Your task to perform on an android device: Clear the cart on costco. Search for "acer predator" on costco, select the first entry, and add it to the cart. Image 0: 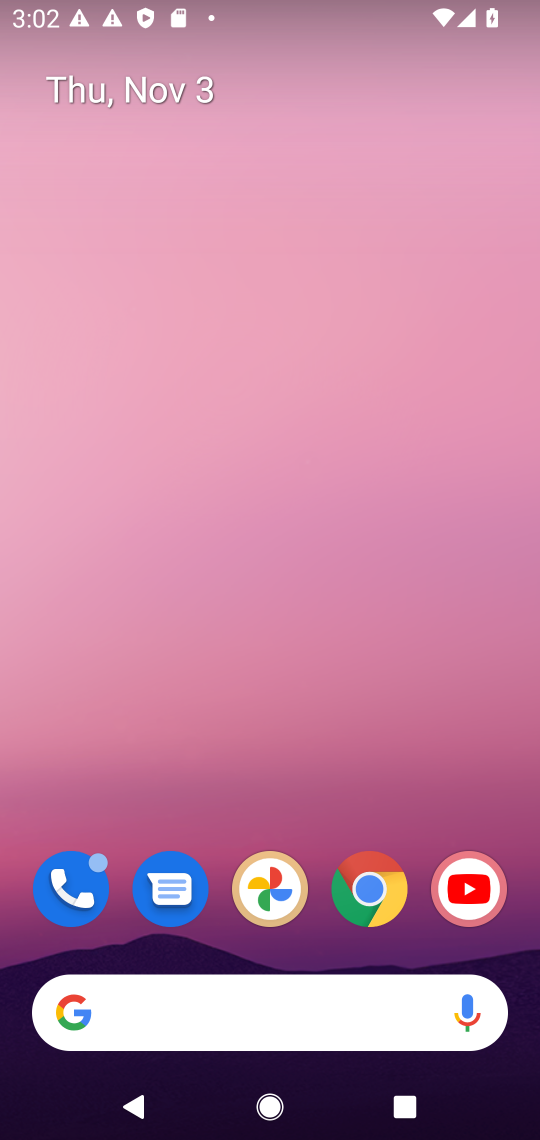
Step 0: click (381, 885)
Your task to perform on an android device: Clear the cart on costco. Search for "acer predator" on costco, select the first entry, and add it to the cart. Image 1: 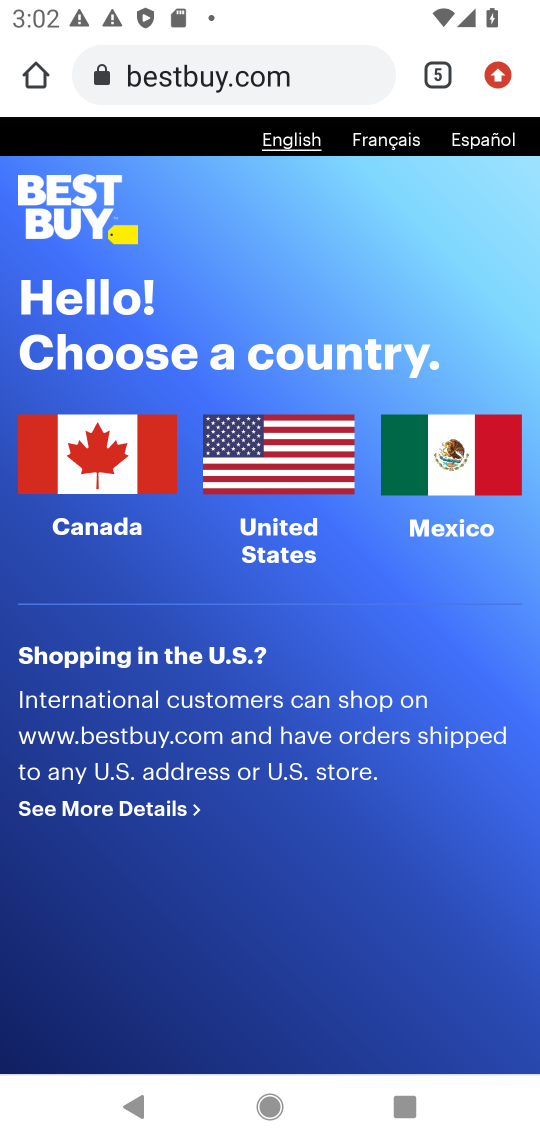
Step 1: click (436, 75)
Your task to perform on an android device: Clear the cart on costco. Search for "acer predator" on costco, select the first entry, and add it to the cart. Image 2: 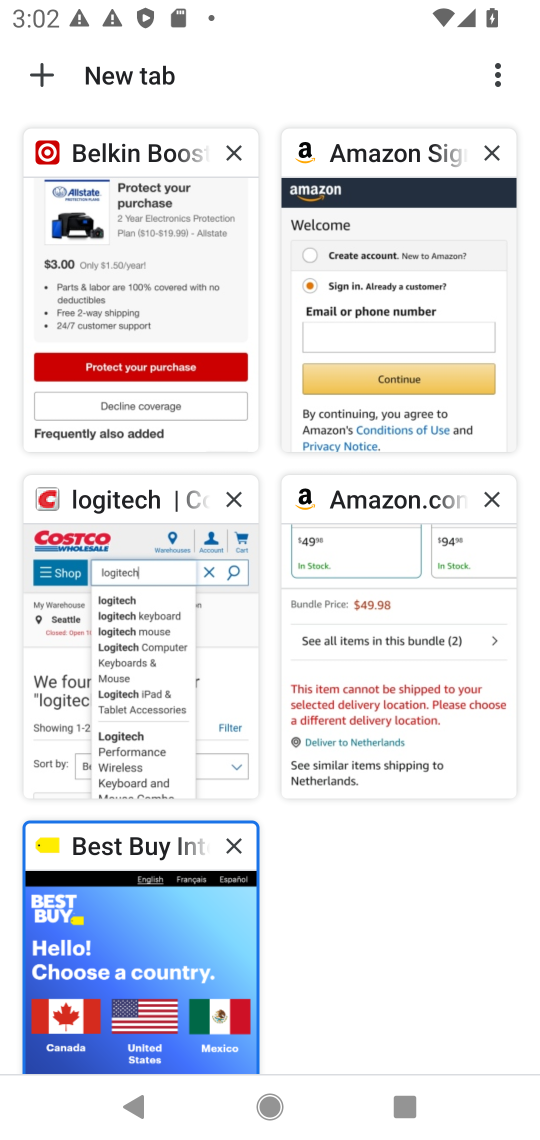
Step 2: click (40, 78)
Your task to perform on an android device: Clear the cart on costco. Search for "acer predator" on costco, select the first entry, and add it to the cart. Image 3: 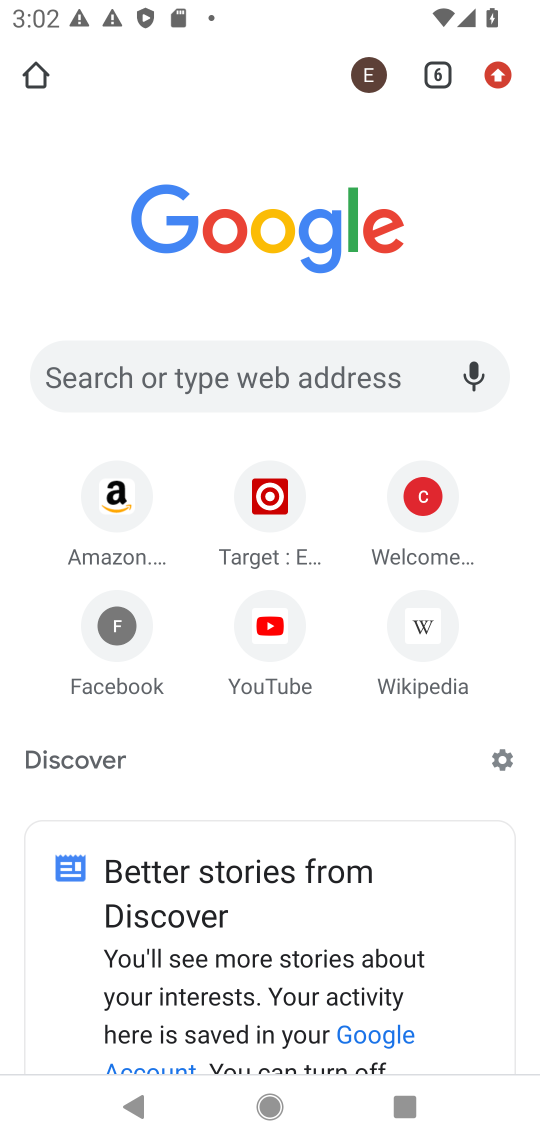
Step 3: click (230, 365)
Your task to perform on an android device: Clear the cart on costco. Search for "acer predator" on costco, select the first entry, and add it to the cart. Image 4: 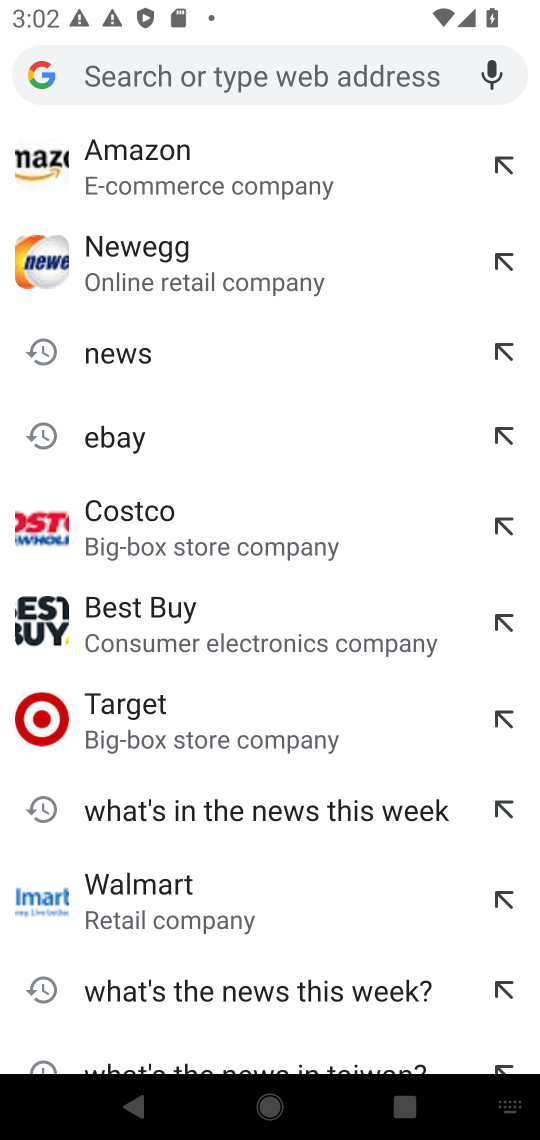
Step 4: type "costco"
Your task to perform on an android device: Clear the cart on costco. Search for "acer predator" on costco, select the first entry, and add it to the cart. Image 5: 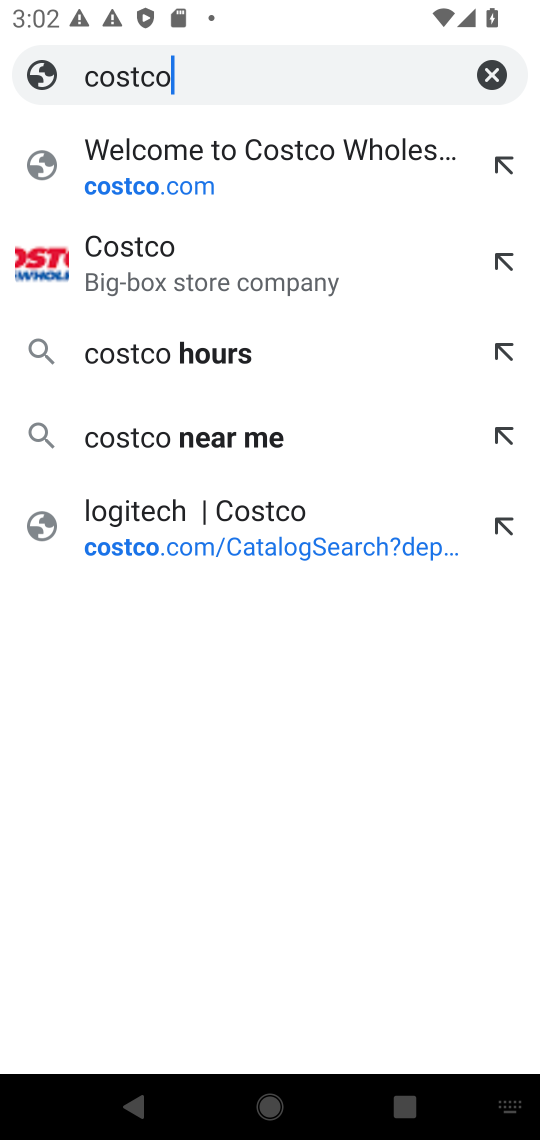
Step 5: click (283, 179)
Your task to perform on an android device: Clear the cart on costco. Search for "acer predator" on costco, select the first entry, and add it to the cart. Image 6: 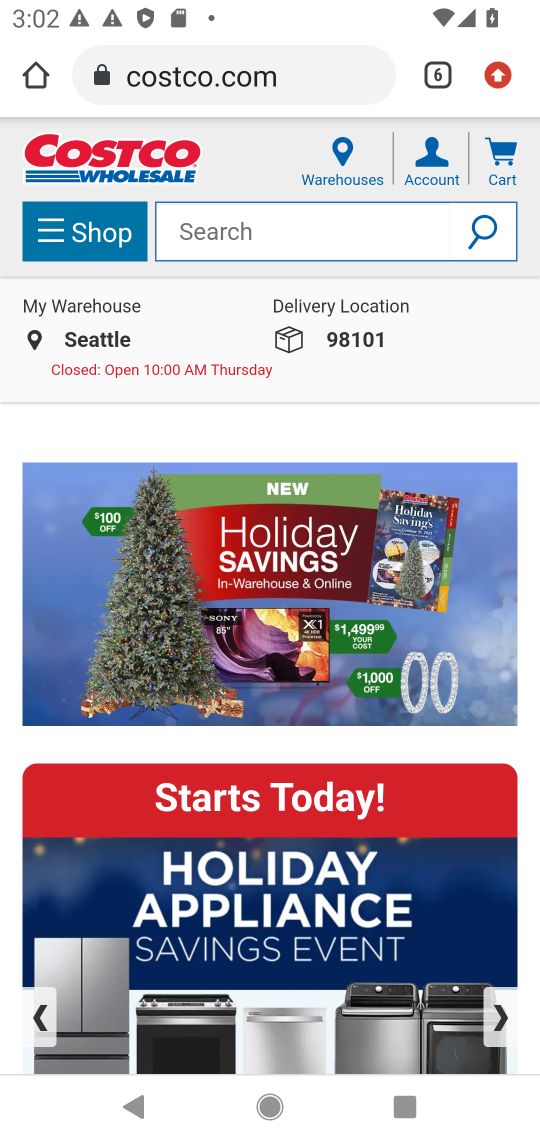
Step 6: click (233, 226)
Your task to perform on an android device: Clear the cart on costco. Search for "acer predator" on costco, select the first entry, and add it to the cart. Image 7: 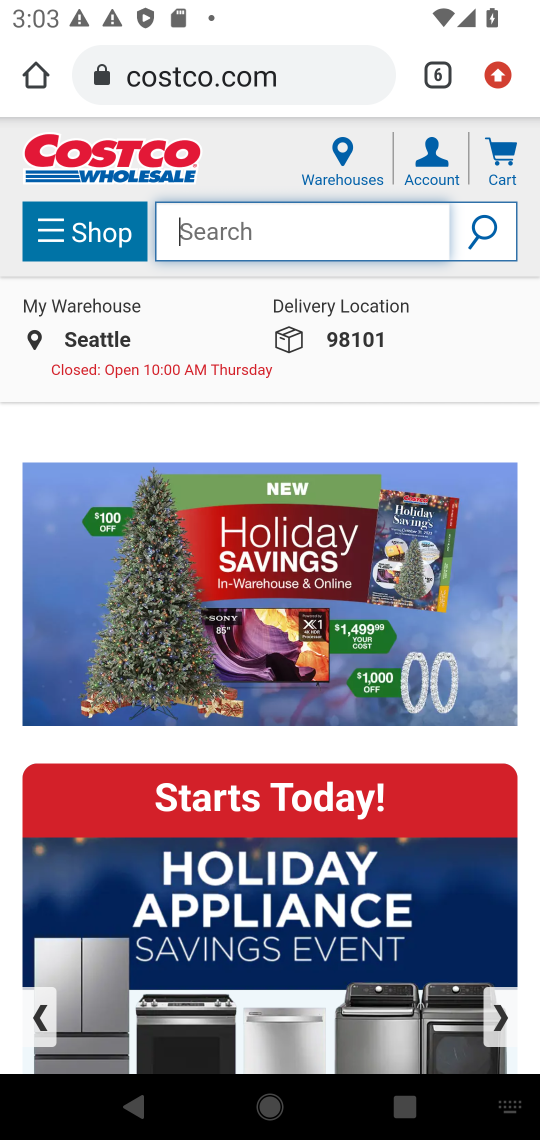
Step 7: click (274, 241)
Your task to perform on an android device: Clear the cart on costco. Search for "acer predator" on costco, select the first entry, and add it to the cart. Image 8: 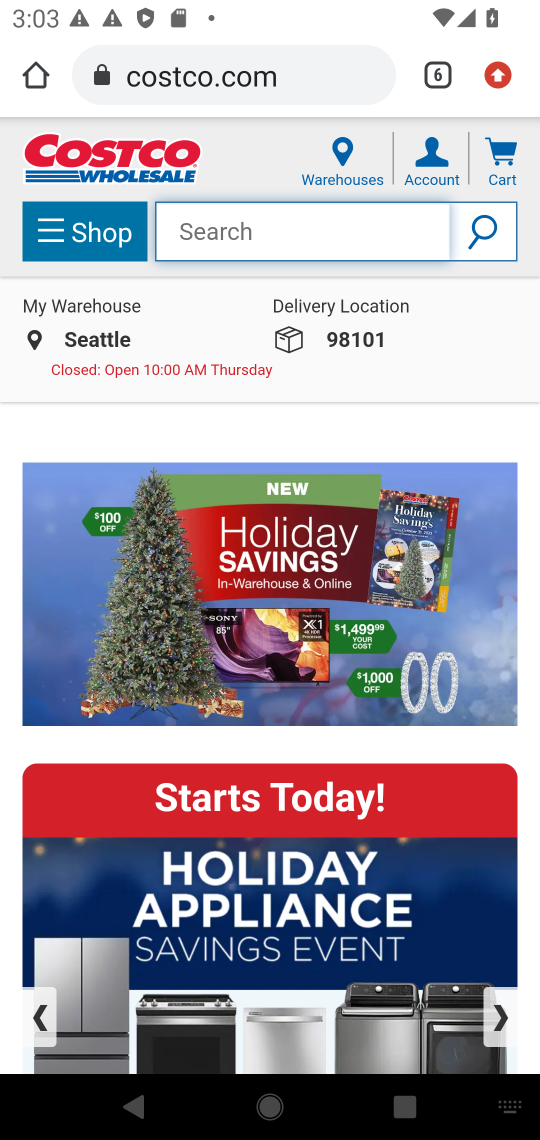
Step 8: type "acer predator"
Your task to perform on an android device: Clear the cart on costco. Search for "acer predator" on costco, select the first entry, and add it to the cart. Image 9: 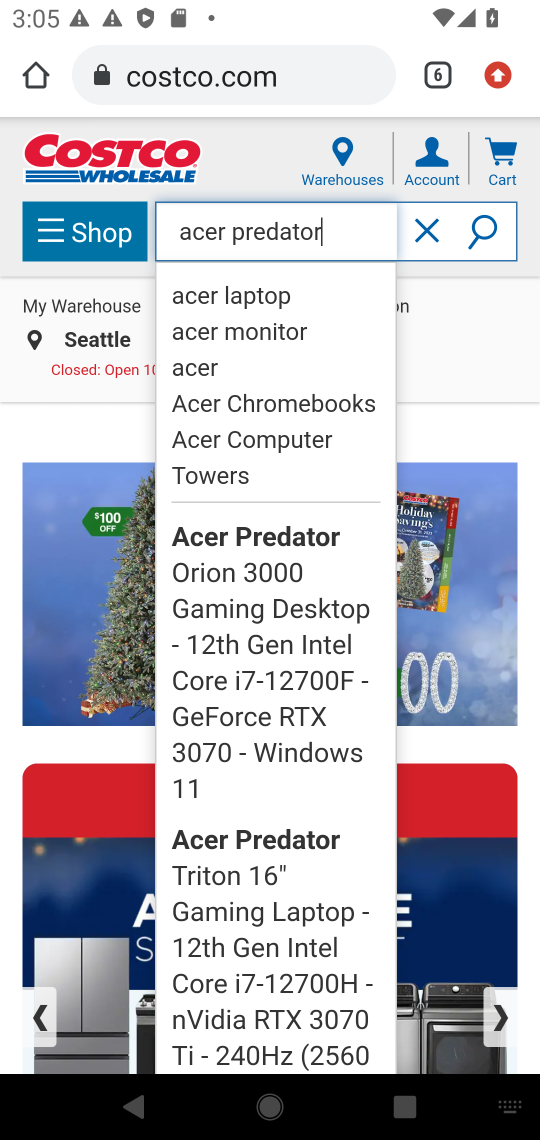
Step 9: click (280, 536)
Your task to perform on an android device: Clear the cart on costco. Search for "acer predator" on costco, select the first entry, and add it to the cart. Image 10: 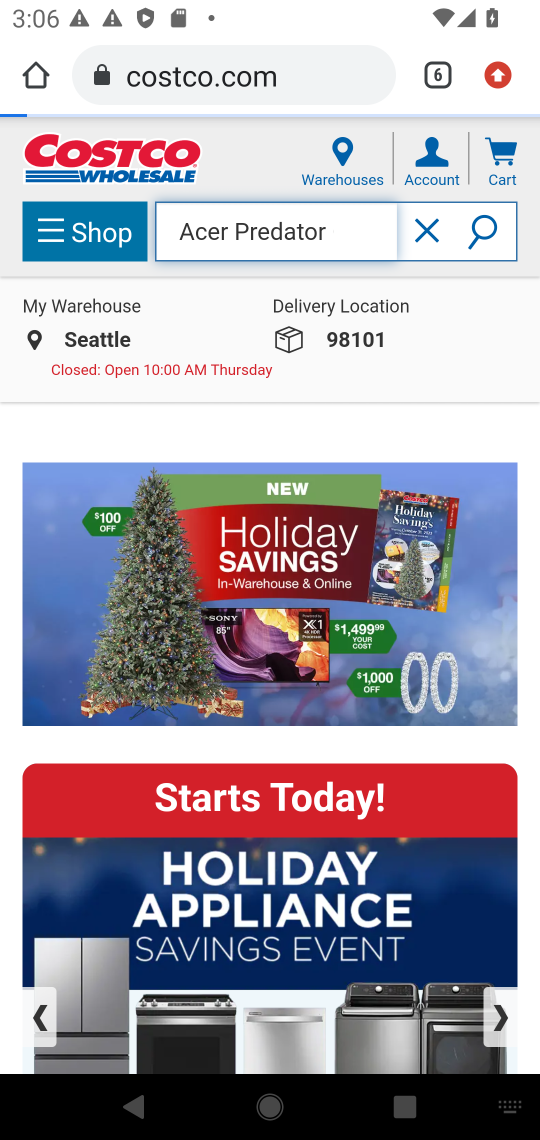
Step 10: drag from (355, 846) to (414, 340)
Your task to perform on an android device: Clear the cart on costco. Search for "acer predator" on costco, select the first entry, and add it to the cart. Image 11: 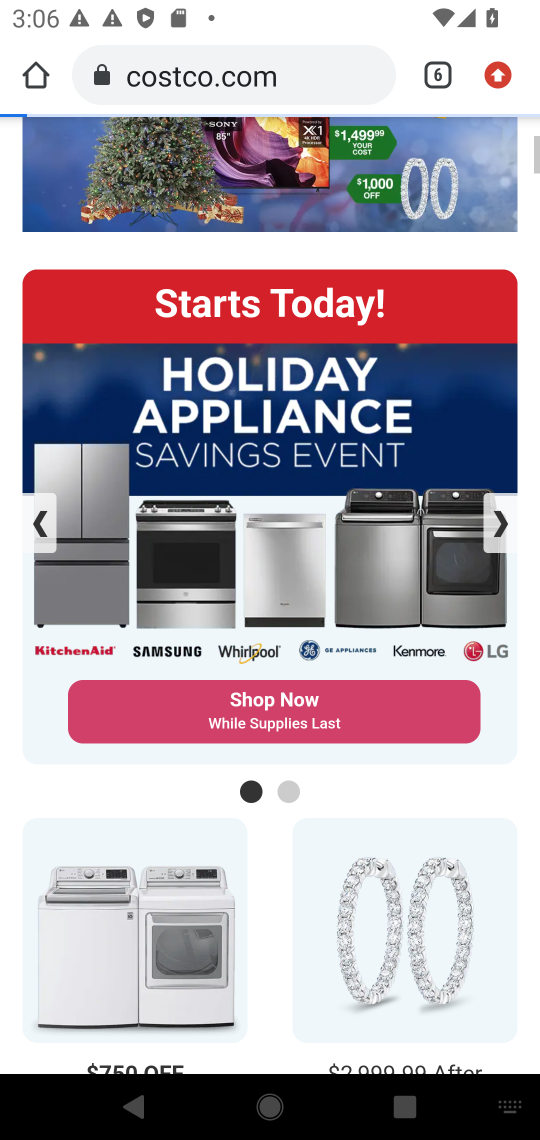
Step 11: drag from (406, 405) to (456, 1108)
Your task to perform on an android device: Clear the cart on costco. Search for "acer predator" on costco, select the first entry, and add it to the cart. Image 12: 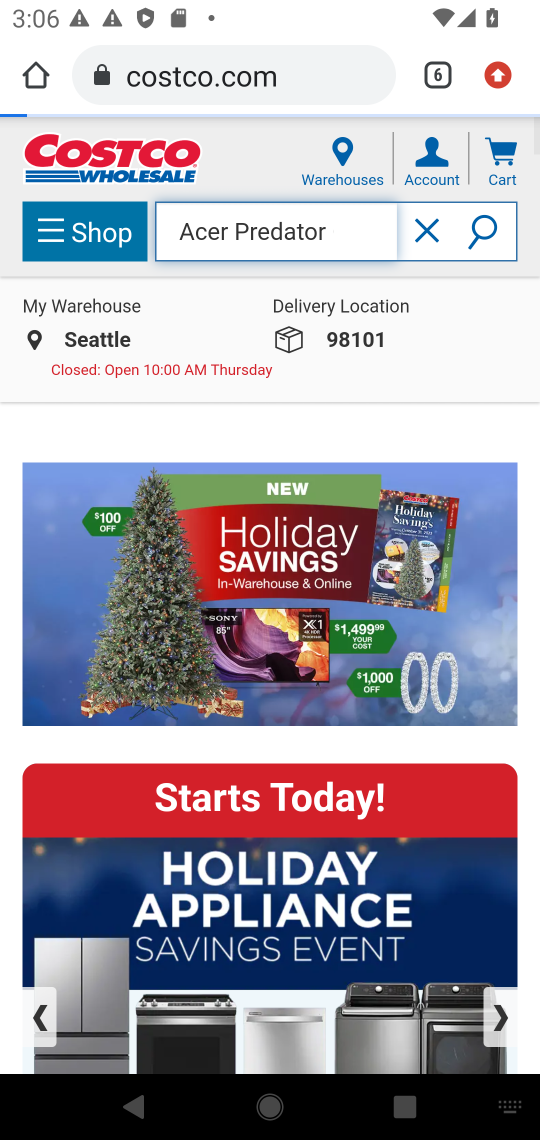
Step 12: drag from (355, 395) to (302, 920)
Your task to perform on an android device: Clear the cart on costco. Search for "acer predator" on costco, select the first entry, and add it to the cart. Image 13: 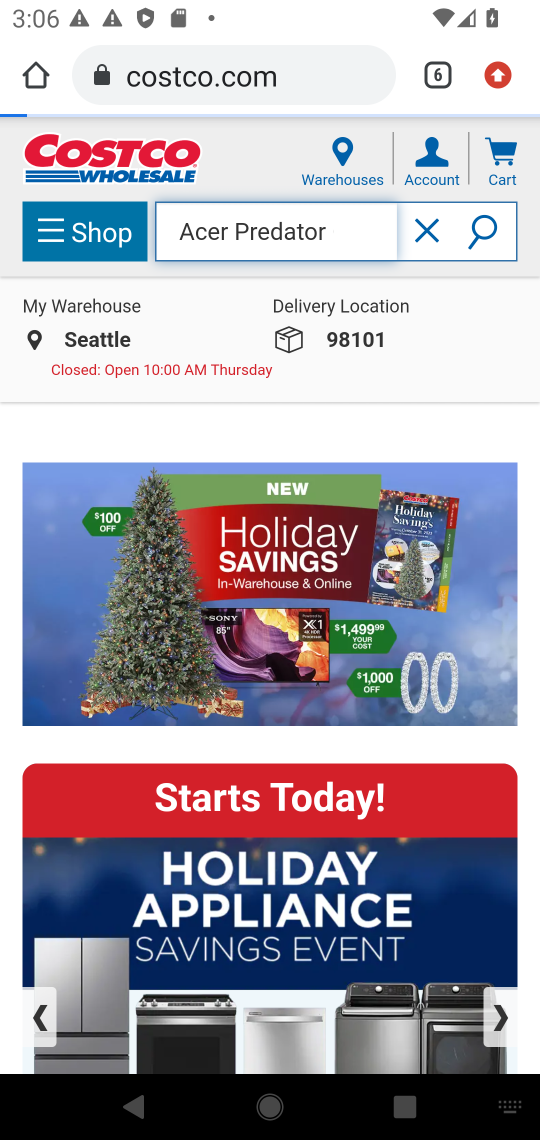
Step 13: click (484, 226)
Your task to perform on an android device: Clear the cart on costco. Search for "acer predator" on costco, select the first entry, and add it to the cart. Image 14: 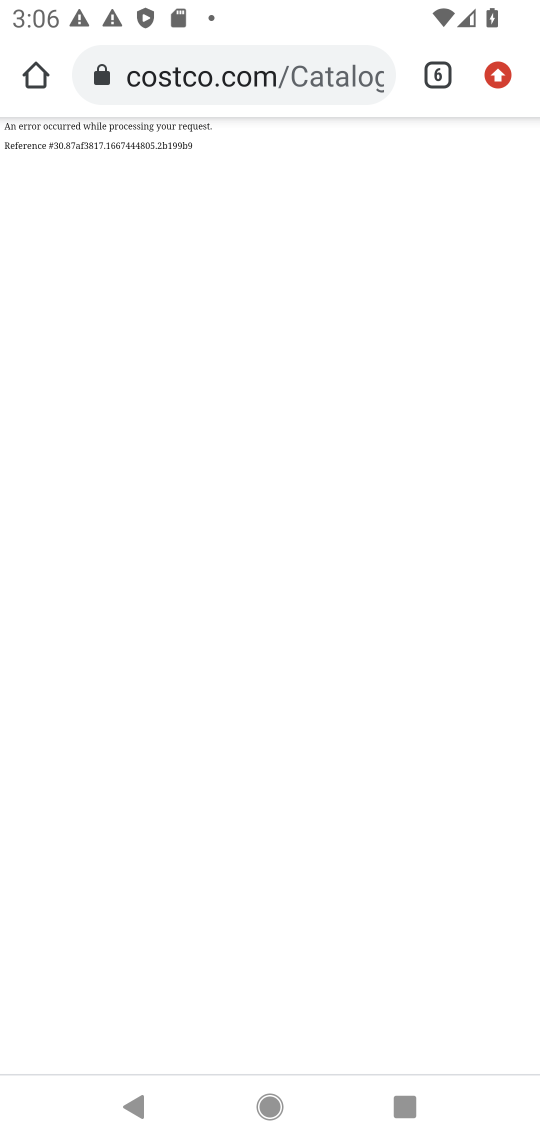
Step 14: task complete